Your task to perform on an android device: remove spam from my inbox in the gmail app Image 0: 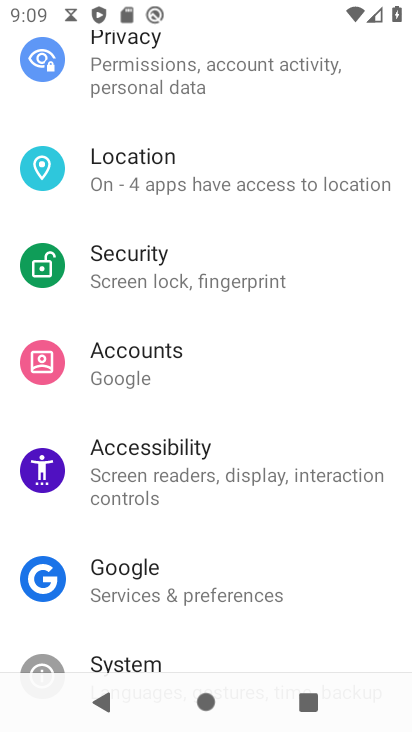
Step 0: press back button
Your task to perform on an android device: remove spam from my inbox in the gmail app Image 1: 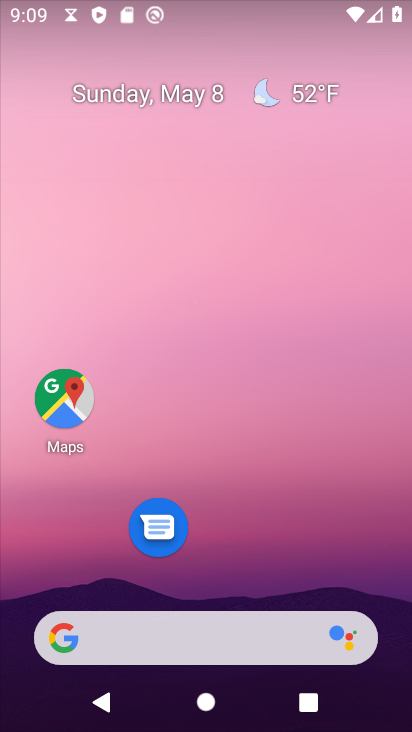
Step 1: drag from (261, 562) to (187, 61)
Your task to perform on an android device: remove spam from my inbox in the gmail app Image 2: 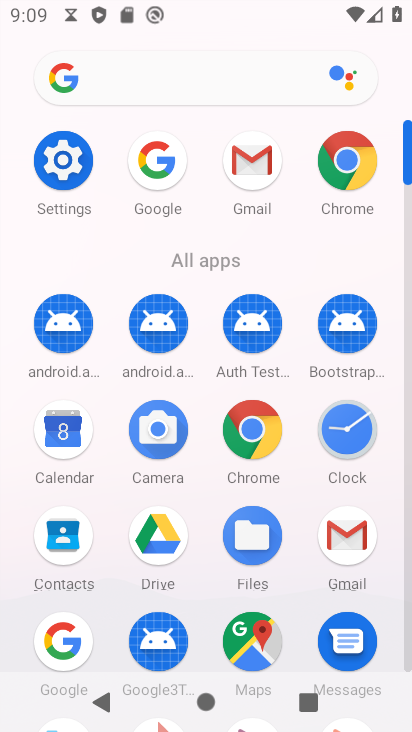
Step 2: click (249, 166)
Your task to perform on an android device: remove spam from my inbox in the gmail app Image 3: 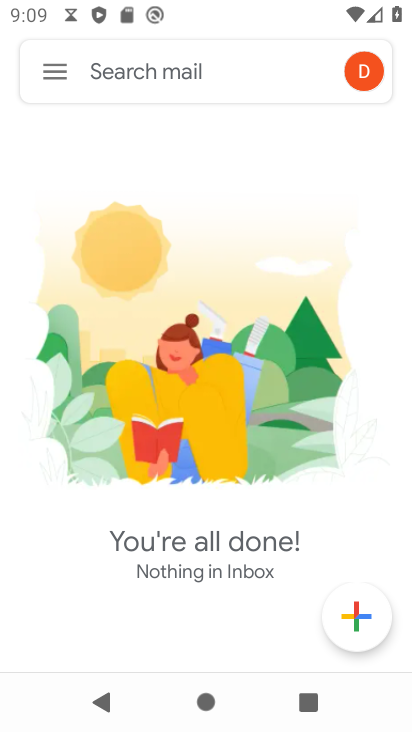
Step 3: click (54, 69)
Your task to perform on an android device: remove spam from my inbox in the gmail app Image 4: 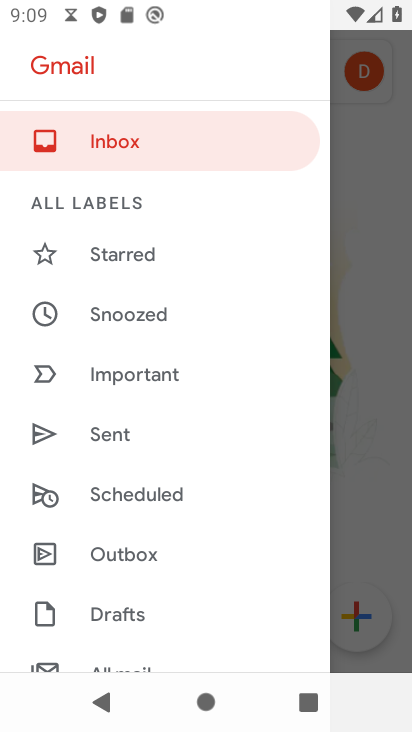
Step 4: drag from (149, 455) to (166, 364)
Your task to perform on an android device: remove spam from my inbox in the gmail app Image 5: 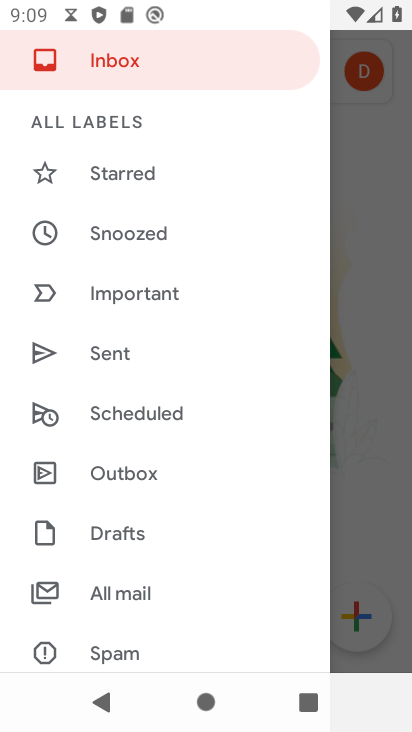
Step 5: drag from (156, 503) to (171, 403)
Your task to perform on an android device: remove spam from my inbox in the gmail app Image 6: 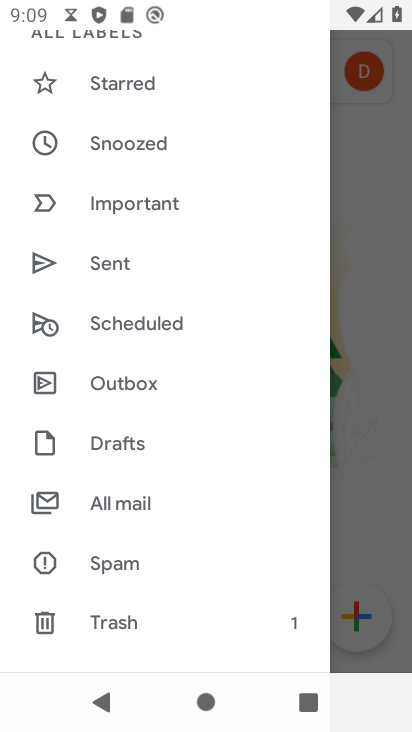
Step 6: click (108, 565)
Your task to perform on an android device: remove spam from my inbox in the gmail app Image 7: 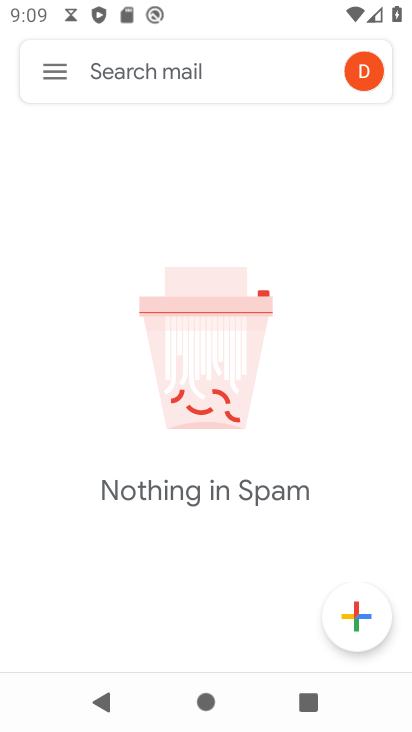
Step 7: task complete